Your task to perform on an android device: see sites visited before in the chrome app Image 0: 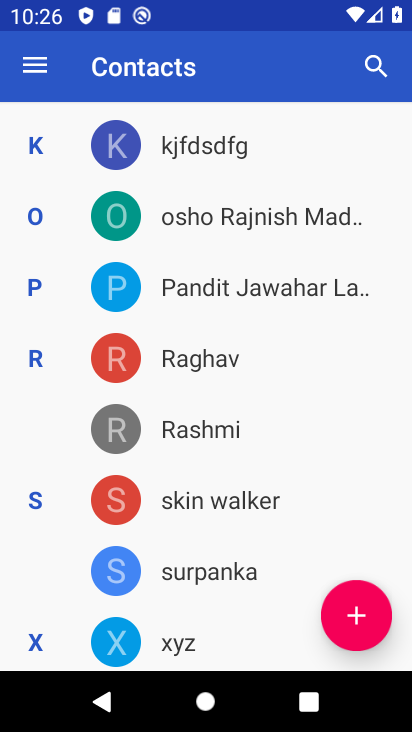
Step 0: press home button
Your task to perform on an android device: see sites visited before in the chrome app Image 1: 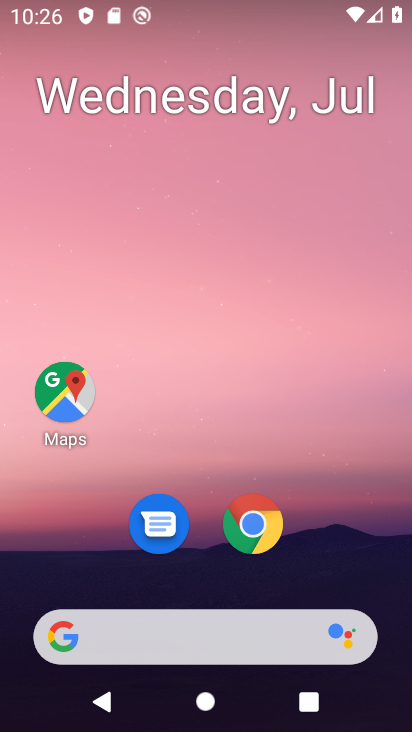
Step 1: click (247, 534)
Your task to perform on an android device: see sites visited before in the chrome app Image 2: 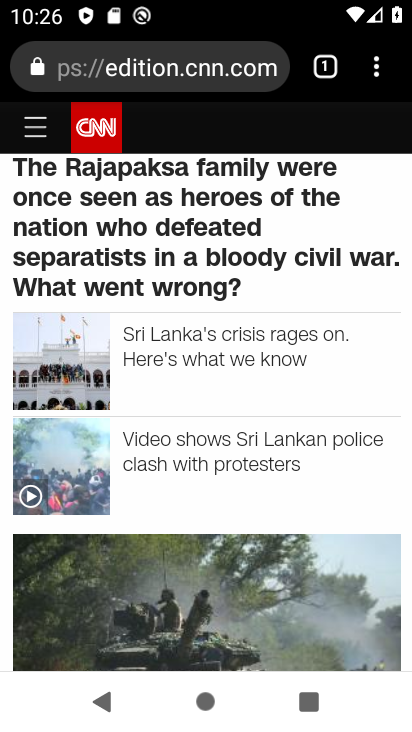
Step 2: task complete